Your task to perform on an android device: Open eBay Image 0: 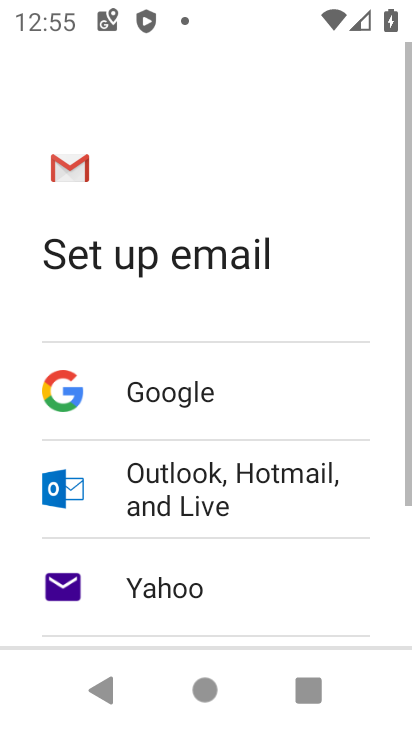
Step 0: press home button
Your task to perform on an android device: Open eBay Image 1: 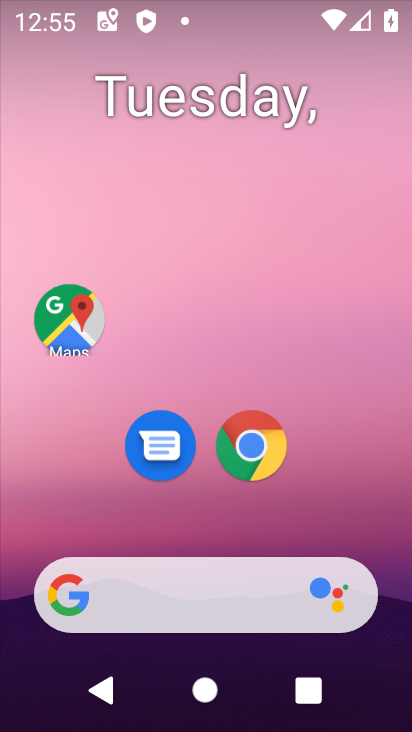
Step 1: click (256, 451)
Your task to perform on an android device: Open eBay Image 2: 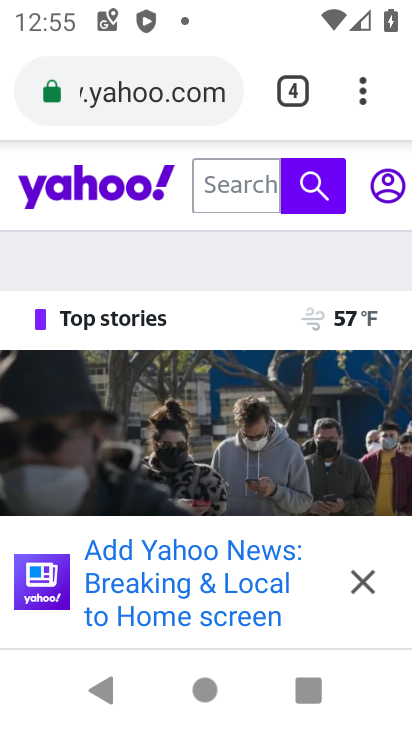
Step 2: click (195, 86)
Your task to perform on an android device: Open eBay Image 3: 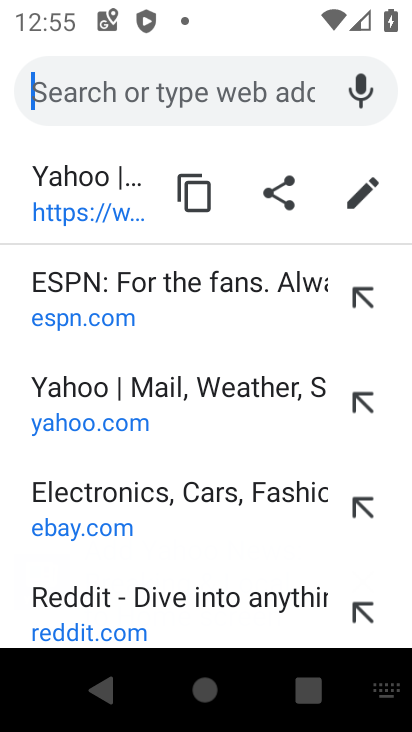
Step 3: drag from (140, 587) to (188, 367)
Your task to perform on an android device: Open eBay Image 4: 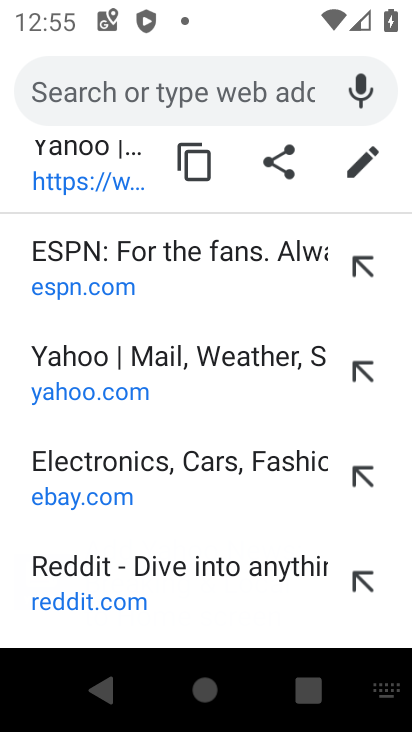
Step 4: drag from (214, 574) to (277, 280)
Your task to perform on an android device: Open eBay Image 5: 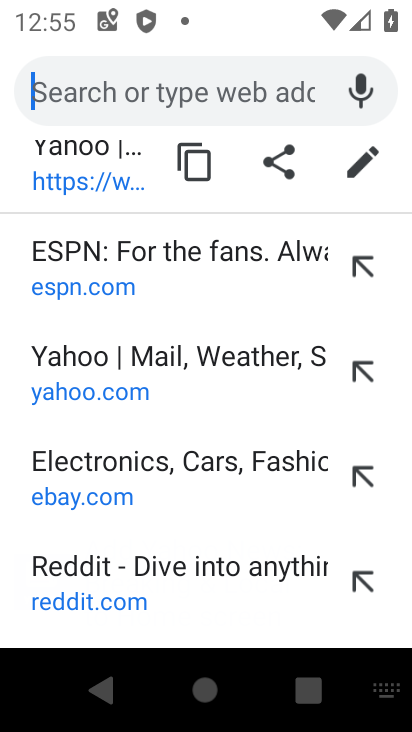
Step 5: type "ebay"
Your task to perform on an android device: Open eBay Image 6: 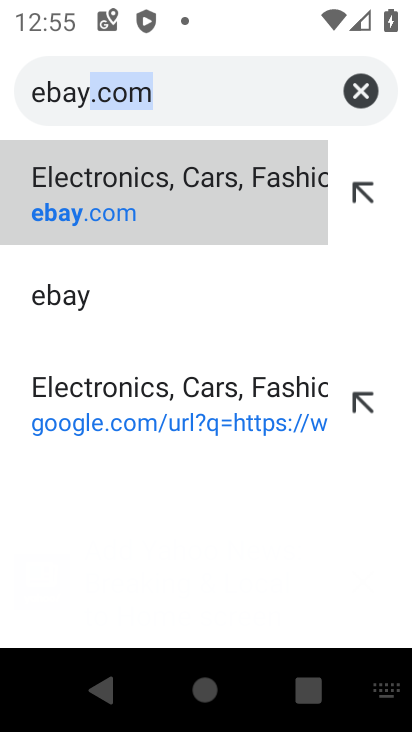
Step 6: click (132, 194)
Your task to perform on an android device: Open eBay Image 7: 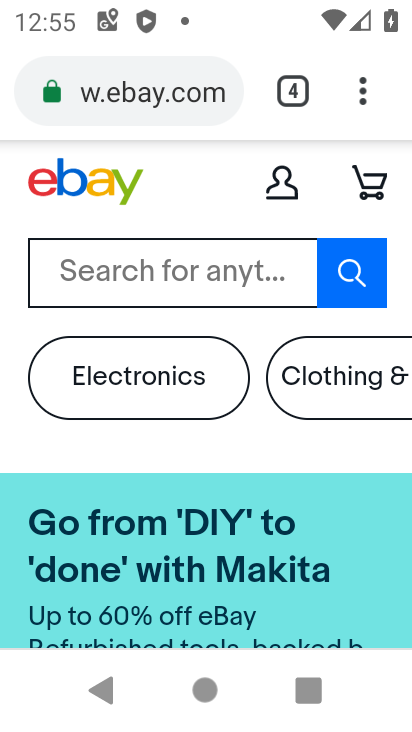
Step 7: task complete